Your task to perform on an android device: Open notification settings Image 0: 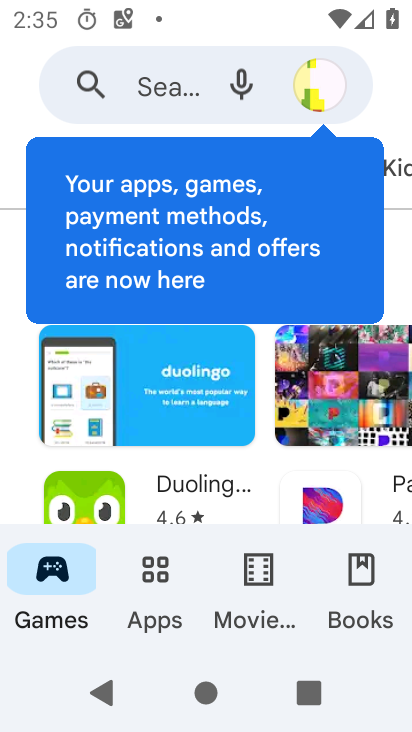
Step 0: press home button
Your task to perform on an android device: Open notification settings Image 1: 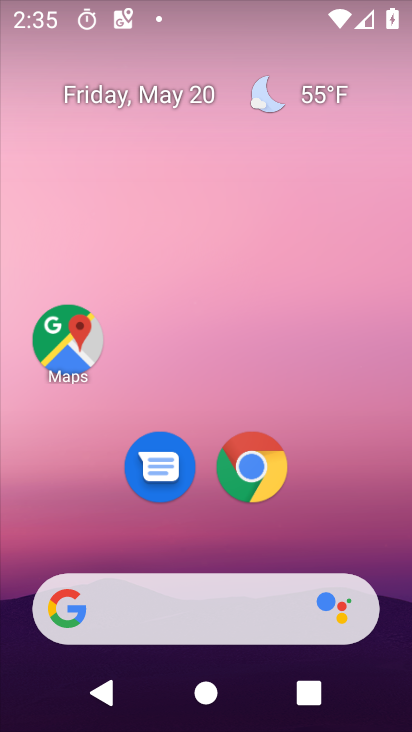
Step 1: drag from (214, 555) to (213, 0)
Your task to perform on an android device: Open notification settings Image 2: 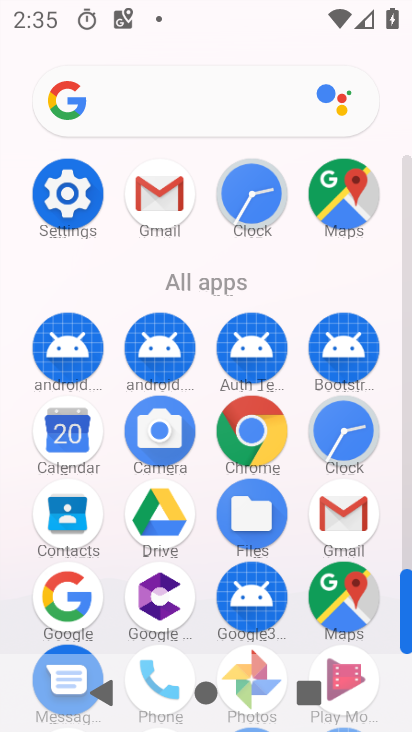
Step 2: click (61, 192)
Your task to perform on an android device: Open notification settings Image 3: 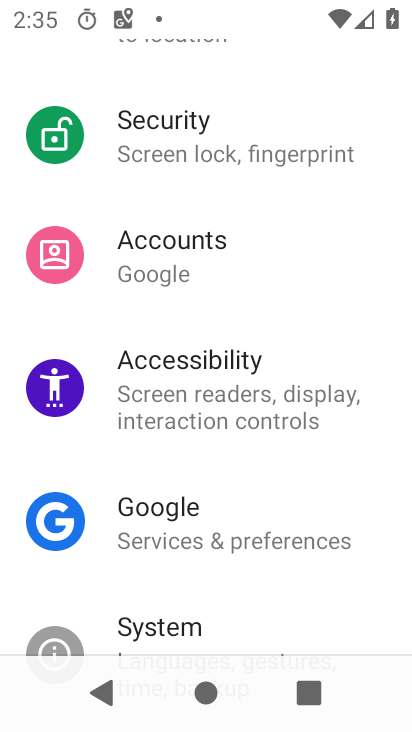
Step 3: drag from (205, 215) to (258, 507)
Your task to perform on an android device: Open notification settings Image 4: 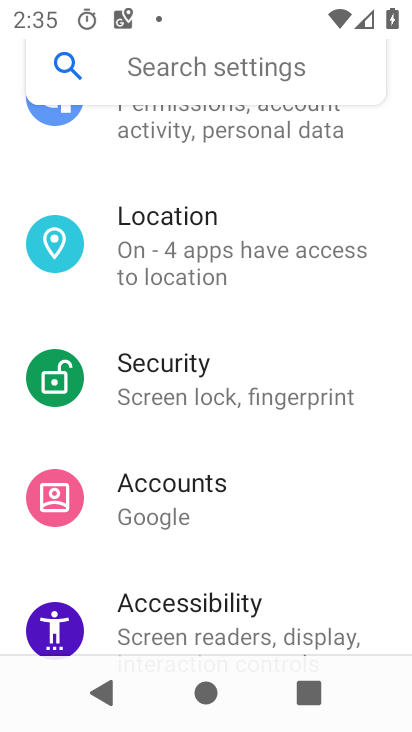
Step 4: drag from (258, 293) to (297, 613)
Your task to perform on an android device: Open notification settings Image 5: 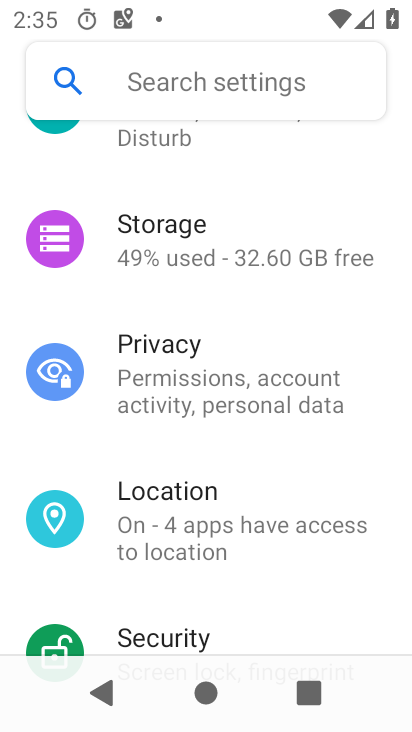
Step 5: drag from (266, 330) to (279, 601)
Your task to perform on an android device: Open notification settings Image 6: 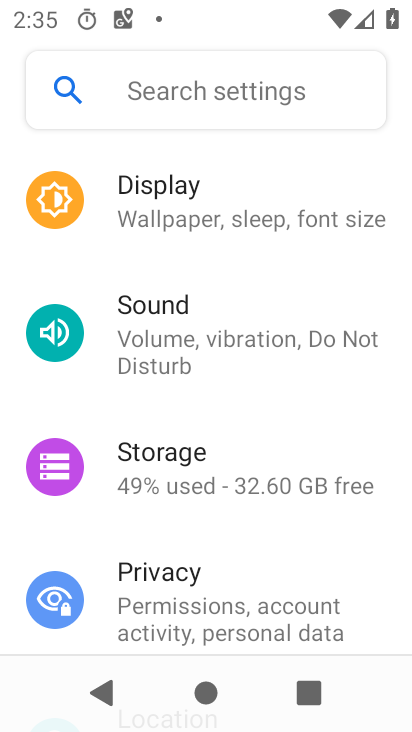
Step 6: drag from (229, 287) to (264, 558)
Your task to perform on an android device: Open notification settings Image 7: 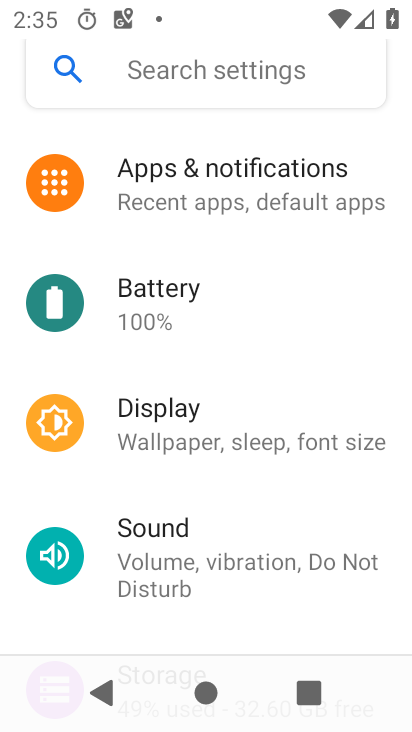
Step 7: click (245, 188)
Your task to perform on an android device: Open notification settings Image 8: 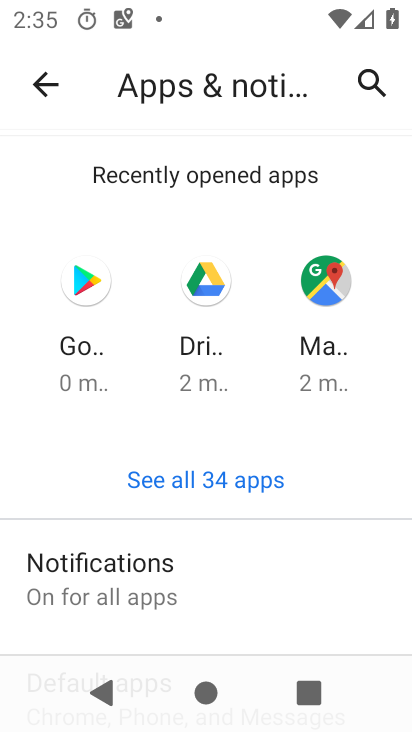
Step 8: click (152, 577)
Your task to perform on an android device: Open notification settings Image 9: 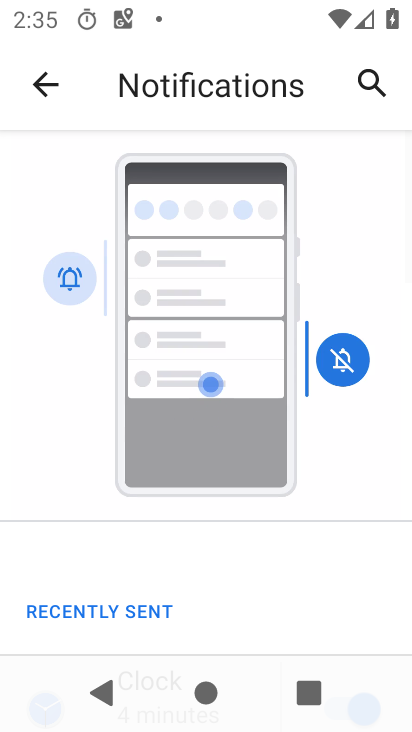
Step 9: task complete